Your task to perform on an android device: delete a single message in the gmail app Image 0: 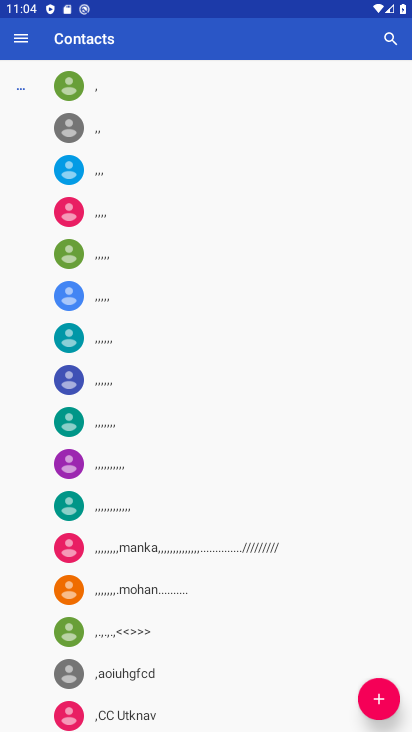
Step 0: press home button
Your task to perform on an android device: delete a single message in the gmail app Image 1: 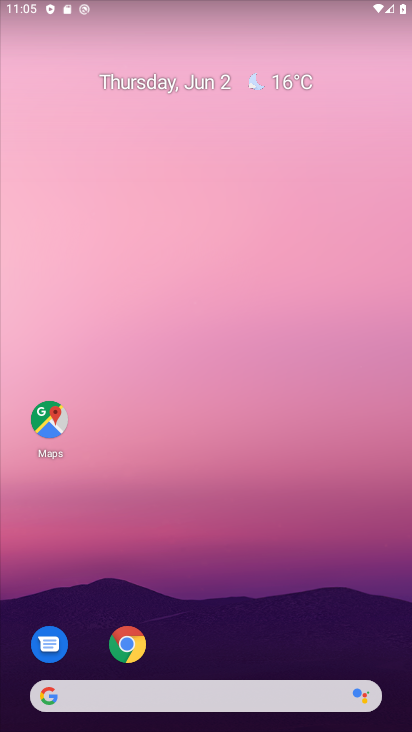
Step 1: click (276, 258)
Your task to perform on an android device: delete a single message in the gmail app Image 2: 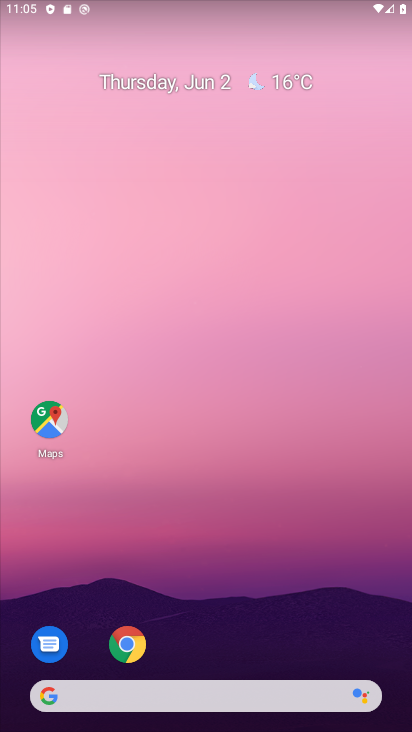
Step 2: drag from (241, 606) to (375, 131)
Your task to perform on an android device: delete a single message in the gmail app Image 3: 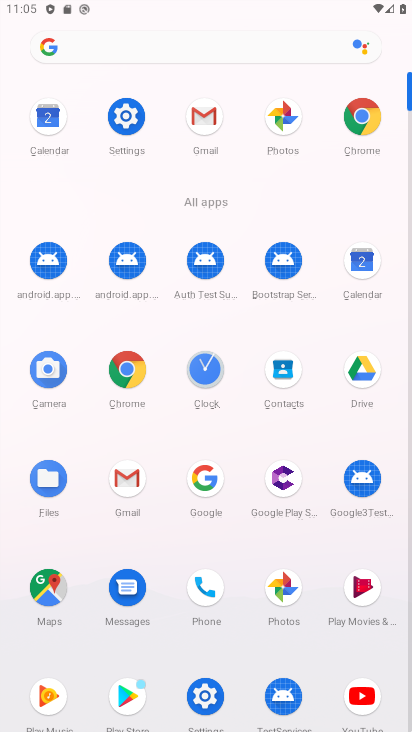
Step 3: click (196, 129)
Your task to perform on an android device: delete a single message in the gmail app Image 4: 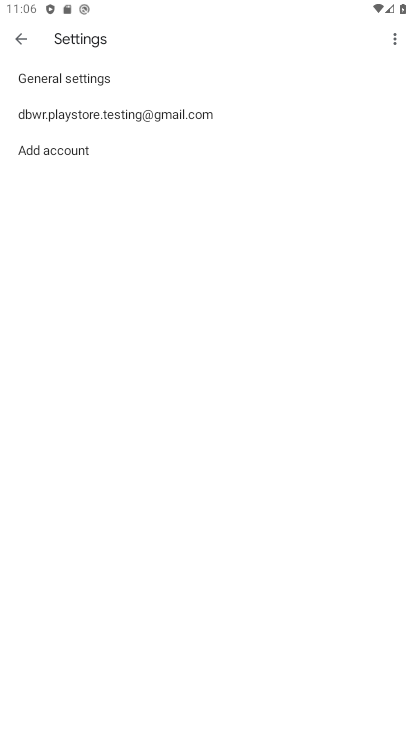
Step 4: press home button
Your task to perform on an android device: delete a single message in the gmail app Image 5: 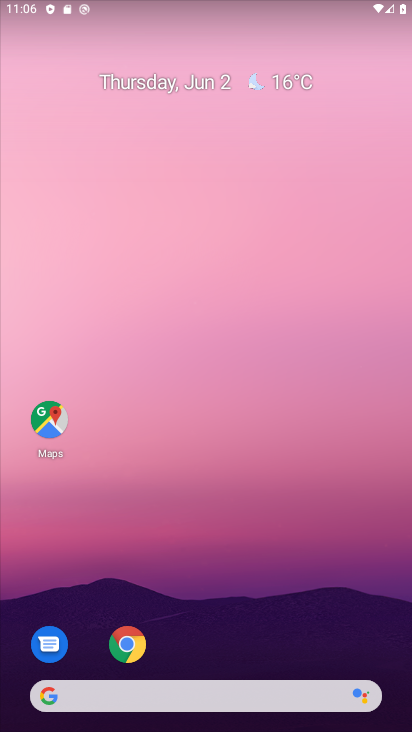
Step 5: drag from (201, 422) to (277, 180)
Your task to perform on an android device: delete a single message in the gmail app Image 6: 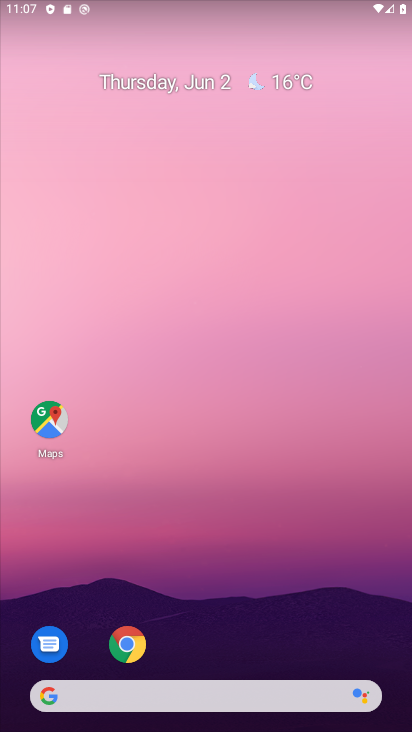
Step 6: drag from (270, 525) to (300, 114)
Your task to perform on an android device: delete a single message in the gmail app Image 7: 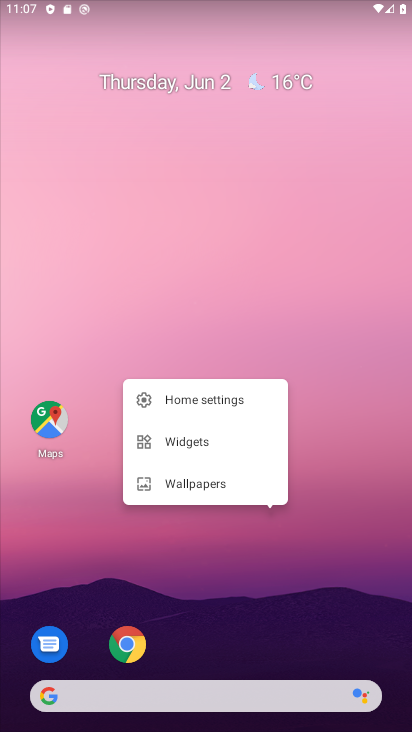
Step 7: drag from (206, 662) to (284, 292)
Your task to perform on an android device: delete a single message in the gmail app Image 8: 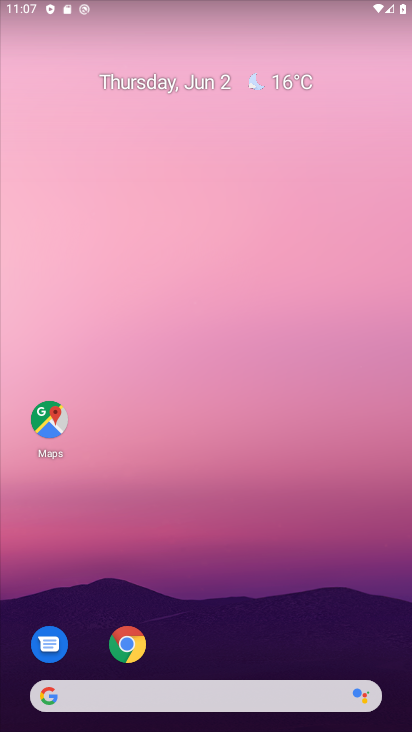
Step 8: drag from (221, 635) to (281, 148)
Your task to perform on an android device: delete a single message in the gmail app Image 9: 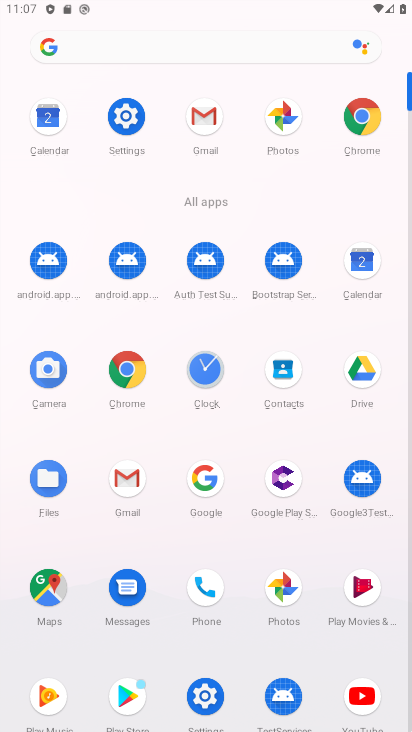
Step 9: click (123, 481)
Your task to perform on an android device: delete a single message in the gmail app Image 10: 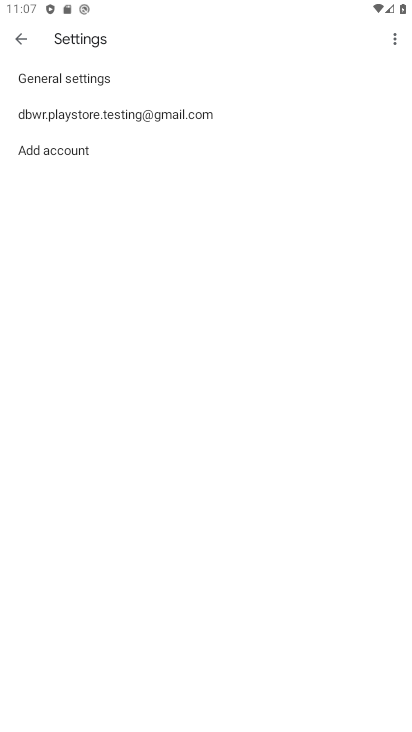
Step 10: click (18, 42)
Your task to perform on an android device: delete a single message in the gmail app Image 11: 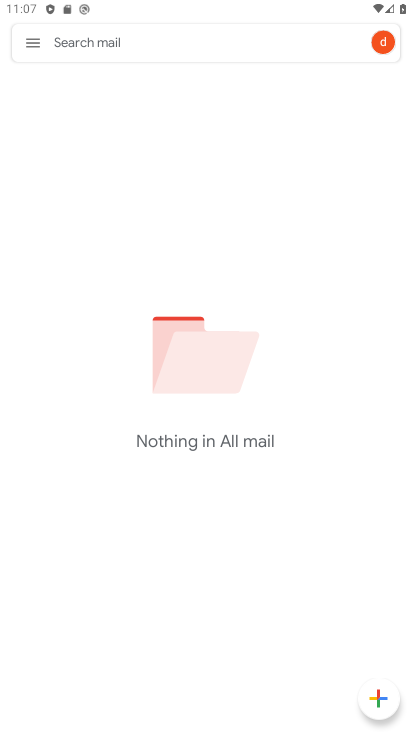
Step 11: click (25, 44)
Your task to perform on an android device: delete a single message in the gmail app Image 12: 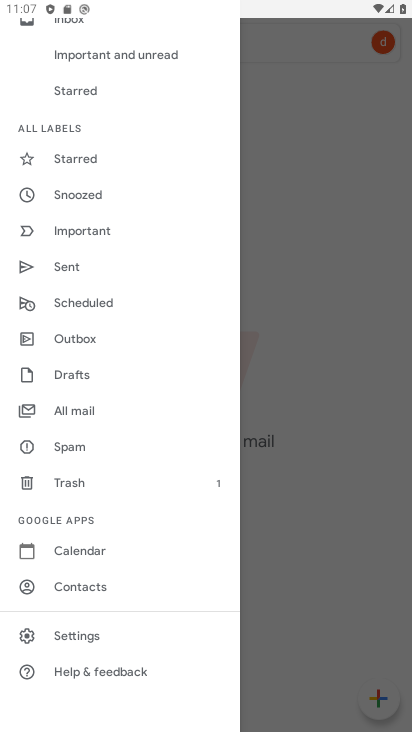
Step 12: click (81, 412)
Your task to perform on an android device: delete a single message in the gmail app Image 13: 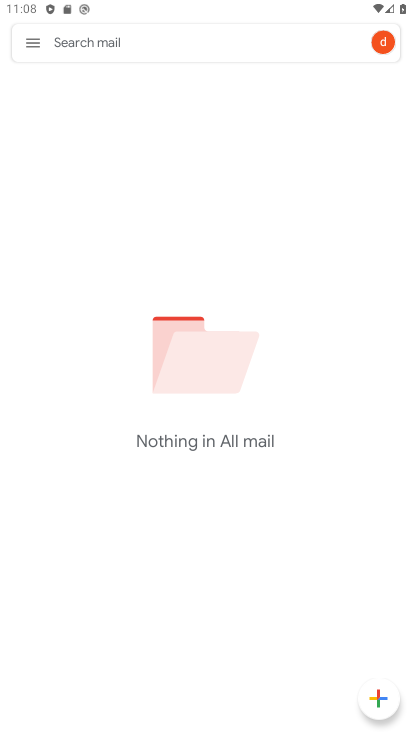
Step 13: task complete